Your task to perform on an android device: What's the weather today? Image 0: 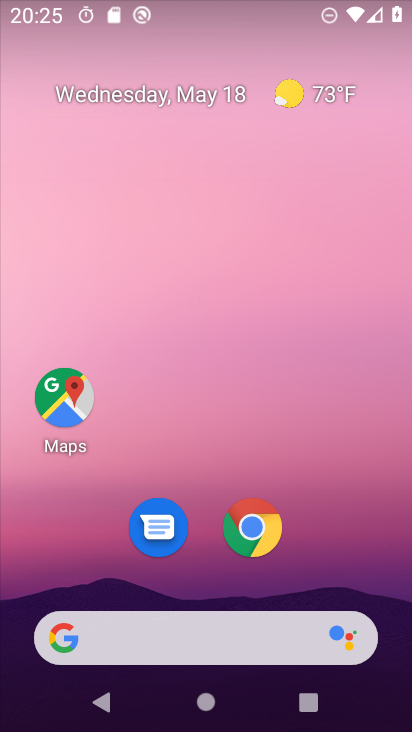
Step 0: click (336, 93)
Your task to perform on an android device: What's the weather today? Image 1: 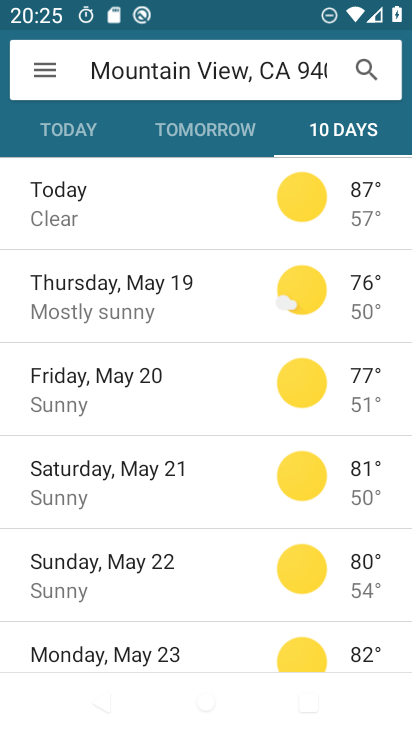
Step 1: click (40, 122)
Your task to perform on an android device: What's the weather today? Image 2: 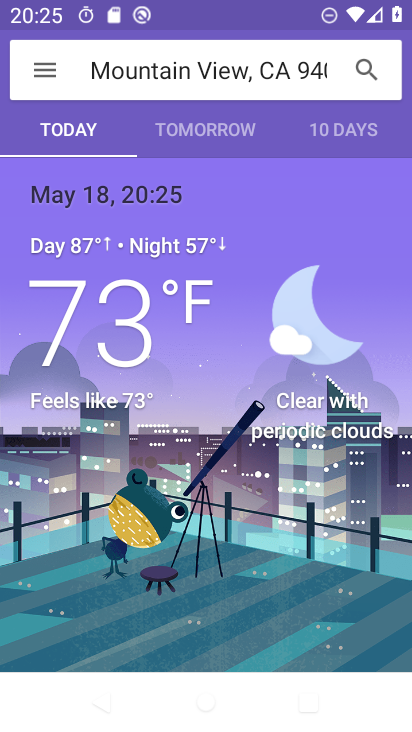
Step 2: task complete